Your task to perform on an android device: Set the phone to "Do not disturb". Image 0: 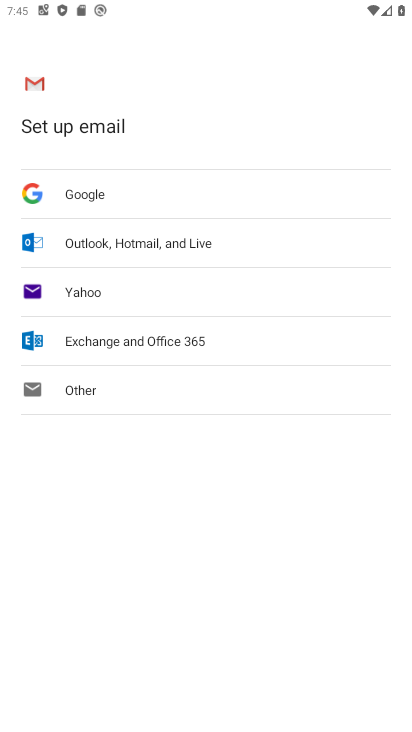
Step 0: press home button
Your task to perform on an android device: Set the phone to "Do not disturb". Image 1: 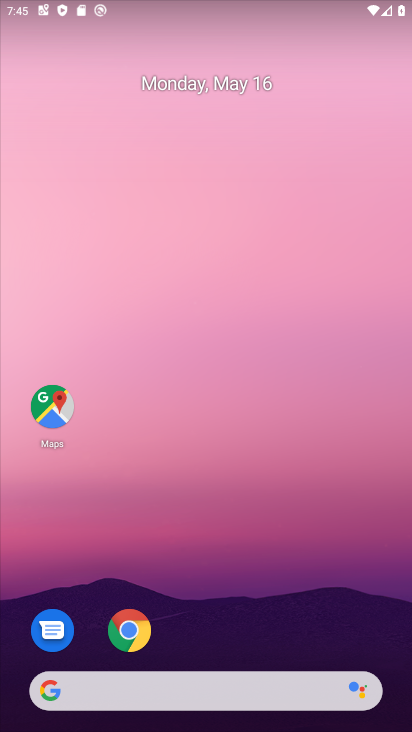
Step 1: drag from (251, 567) to (241, 213)
Your task to perform on an android device: Set the phone to "Do not disturb". Image 2: 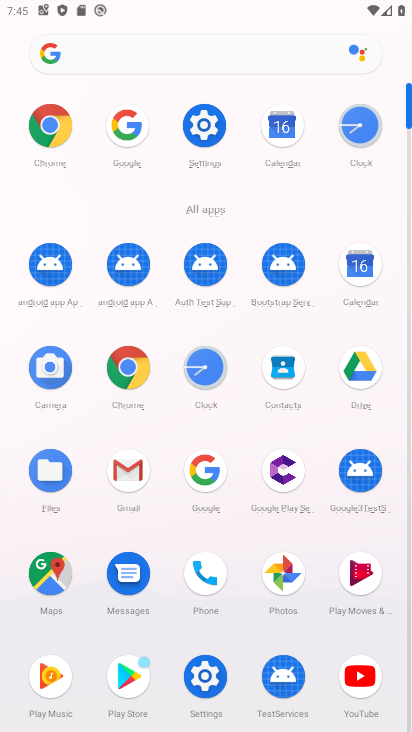
Step 2: click (120, 167)
Your task to perform on an android device: Set the phone to "Do not disturb". Image 3: 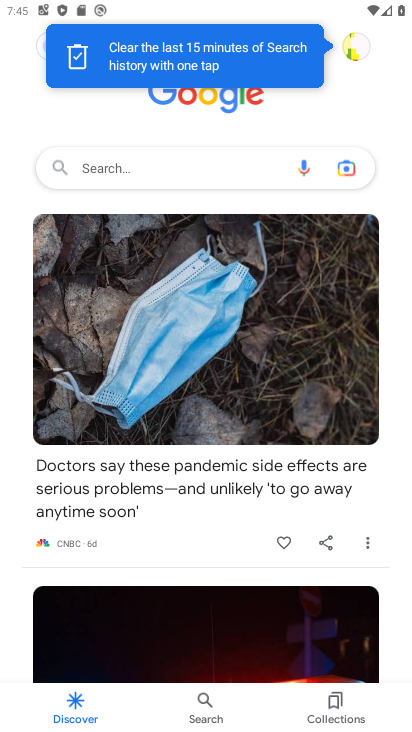
Step 3: press home button
Your task to perform on an android device: Set the phone to "Do not disturb". Image 4: 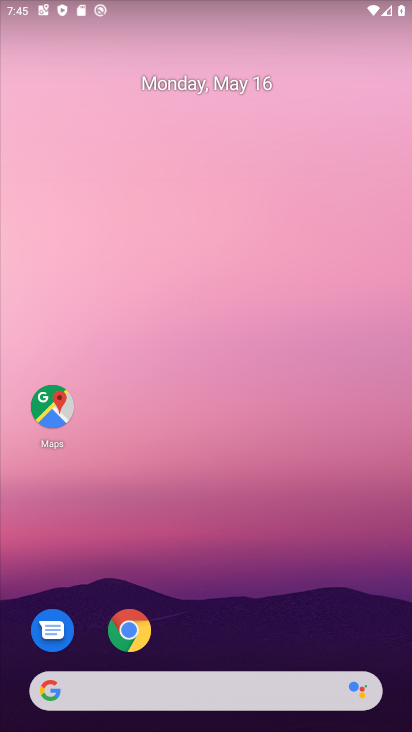
Step 4: drag from (215, 550) to (263, 12)
Your task to perform on an android device: Set the phone to "Do not disturb". Image 5: 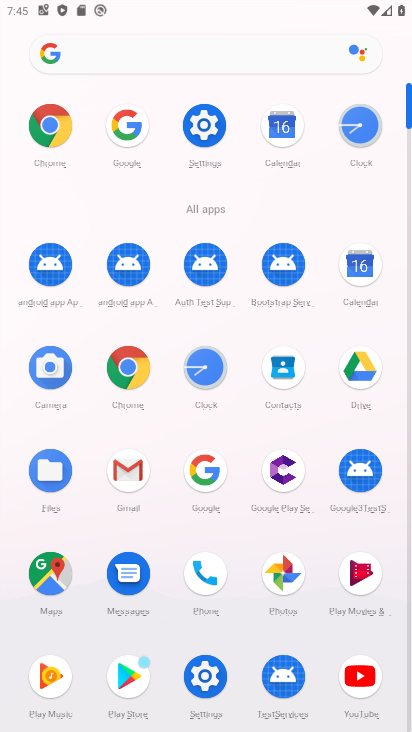
Step 5: click (203, 128)
Your task to perform on an android device: Set the phone to "Do not disturb". Image 6: 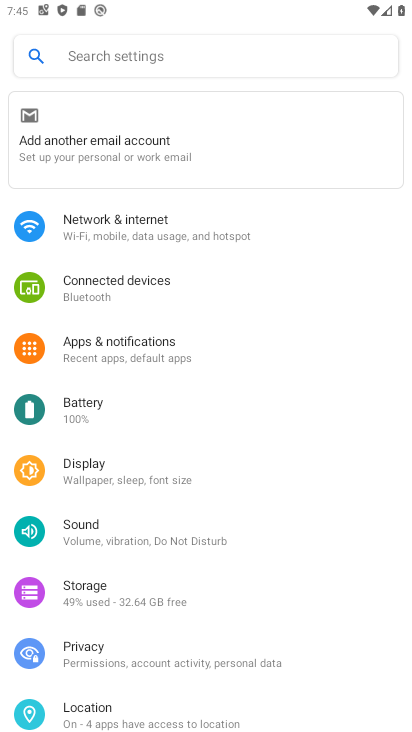
Step 6: click (173, 540)
Your task to perform on an android device: Set the phone to "Do not disturb". Image 7: 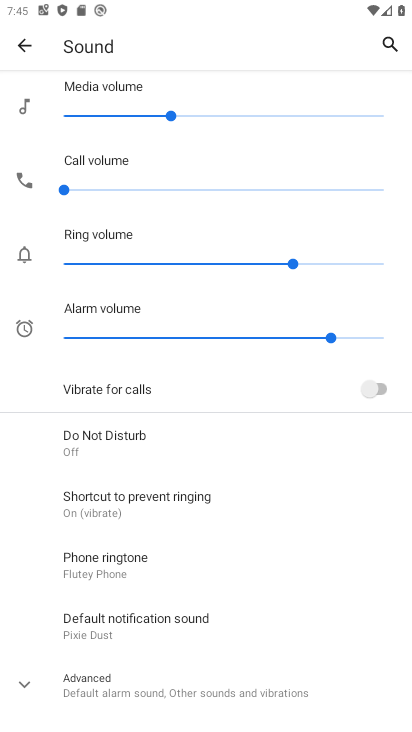
Step 7: click (224, 438)
Your task to perform on an android device: Set the phone to "Do not disturb". Image 8: 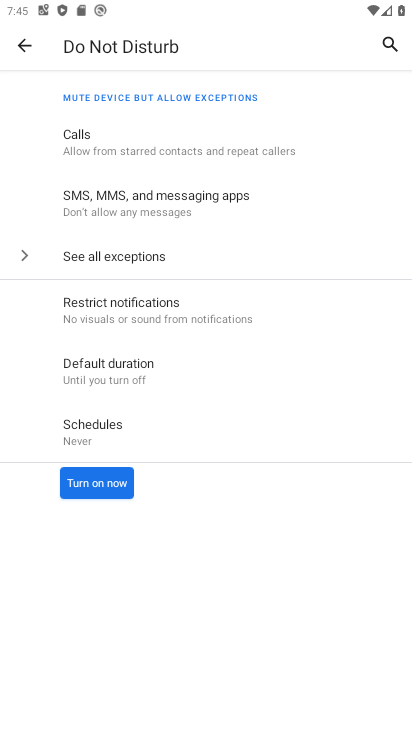
Step 8: click (95, 483)
Your task to perform on an android device: Set the phone to "Do not disturb". Image 9: 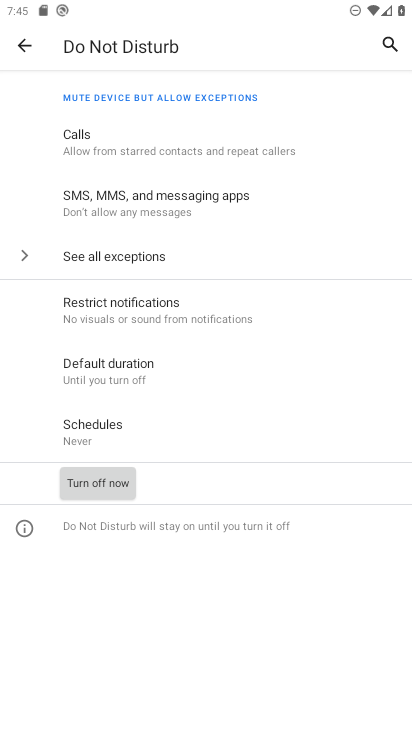
Step 9: task complete